Your task to perform on an android device: What's on my calendar today? Image 0: 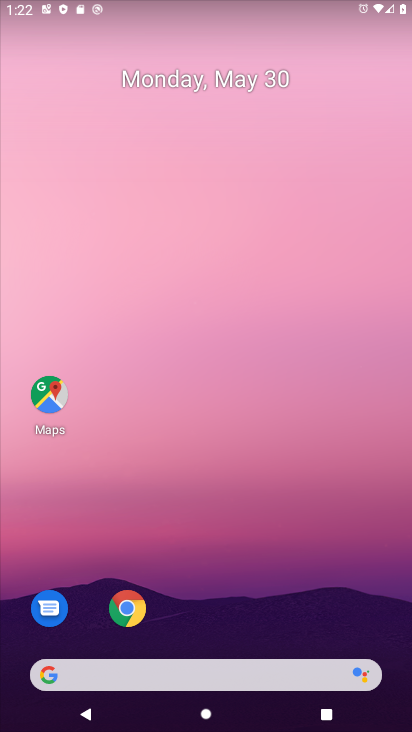
Step 0: drag from (215, 629) to (181, 79)
Your task to perform on an android device: What's on my calendar today? Image 1: 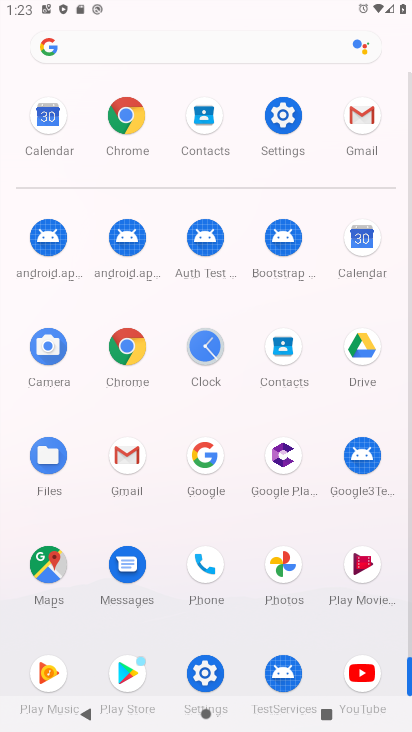
Step 1: click (46, 105)
Your task to perform on an android device: What's on my calendar today? Image 2: 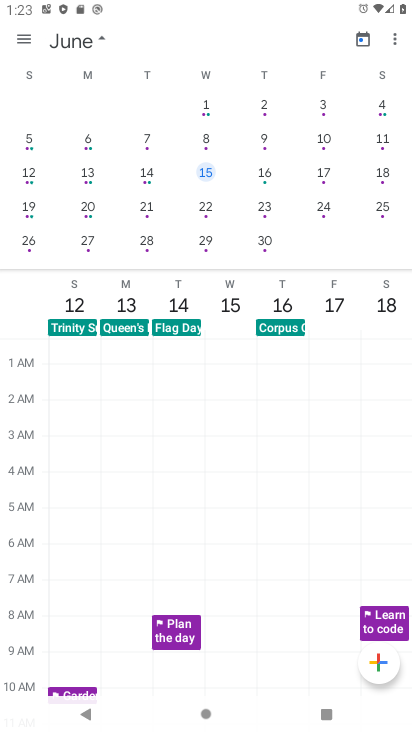
Step 2: click (35, 43)
Your task to perform on an android device: What's on my calendar today? Image 3: 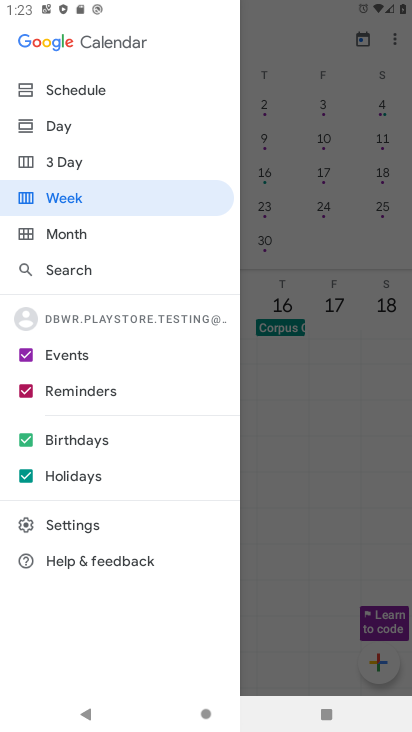
Step 3: click (68, 90)
Your task to perform on an android device: What's on my calendar today? Image 4: 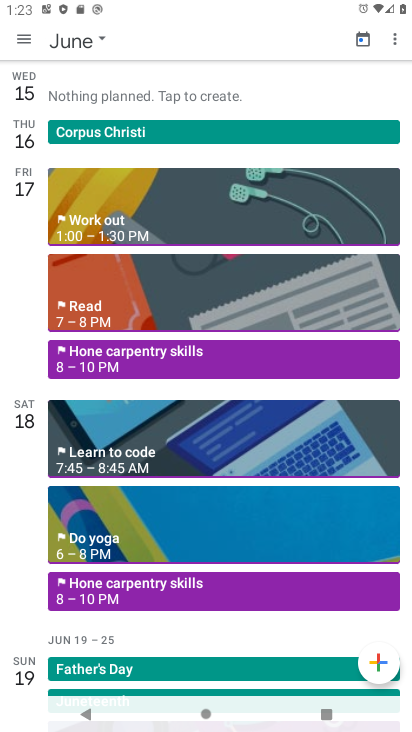
Step 4: click (65, 34)
Your task to perform on an android device: What's on my calendar today? Image 5: 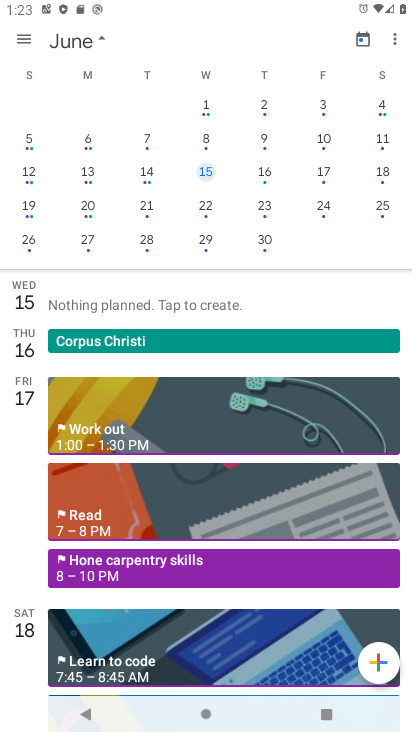
Step 5: drag from (25, 165) to (404, 184)
Your task to perform on an android device: What's on my calendar today? Image 6: 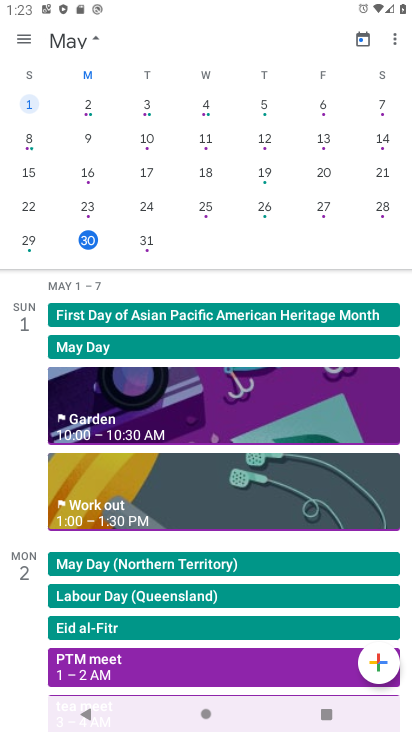
Step 6: click (88, 235)
Your task to perform on an android device: What's on my calendar today? Image 7: 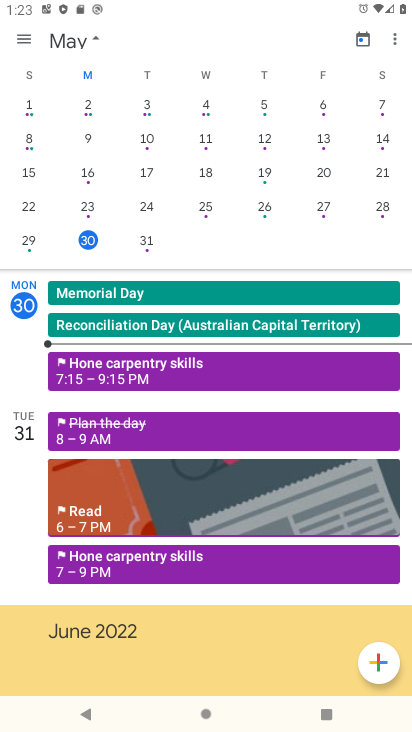
Step 7: task complete